Your task to perform on an android device: Open settings Image 0: 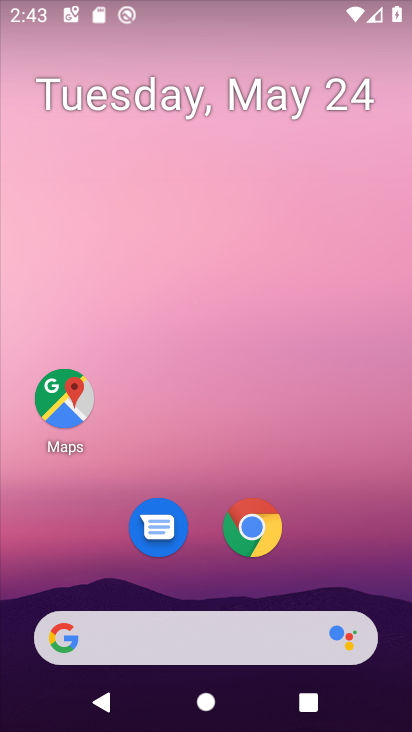
Step 0: drag from (353, 582) to (354, 5)
Your task to perform on an android device: Open settings Image 1: 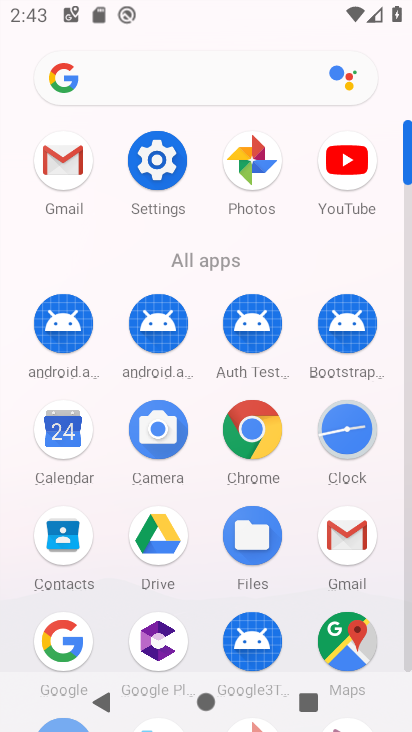
Step 1: click (164, 160)
Your task to perform on an android device: Open settings Image 2: 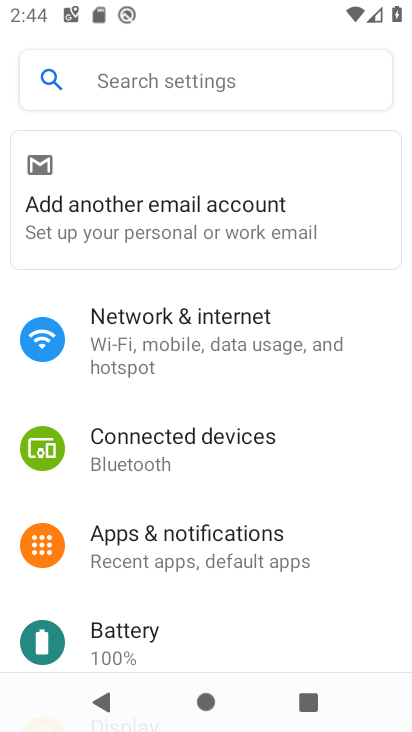
Step 2: task complete